Your task to perform on an android device: turn on sleep mode Image 0: 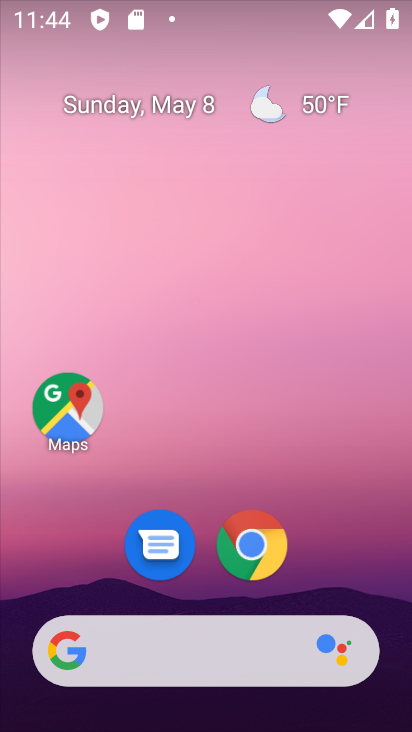
Step 0: drag from (188, 578) to (197, 82)
Your task to perform on an android device: turn on sleep mode Image 1: 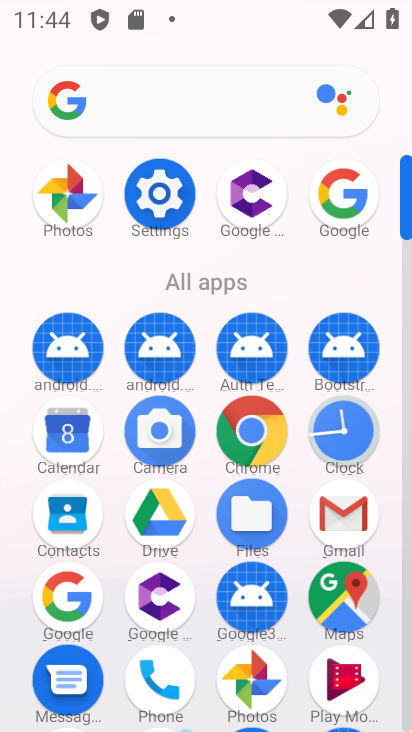
Step 1: click (163, 188)
Your task to perform on an android device: turn on sleep mode Image 2: 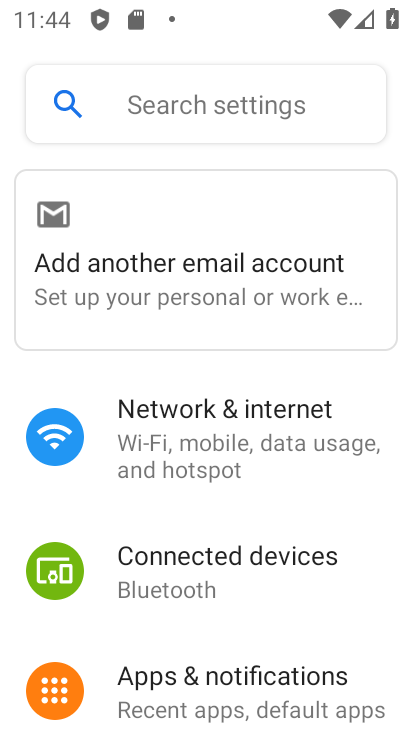
Step 2: drag from (299, 403) to (279, 249)
Your task to perform on an android device: turn on sleep mode Image 3: 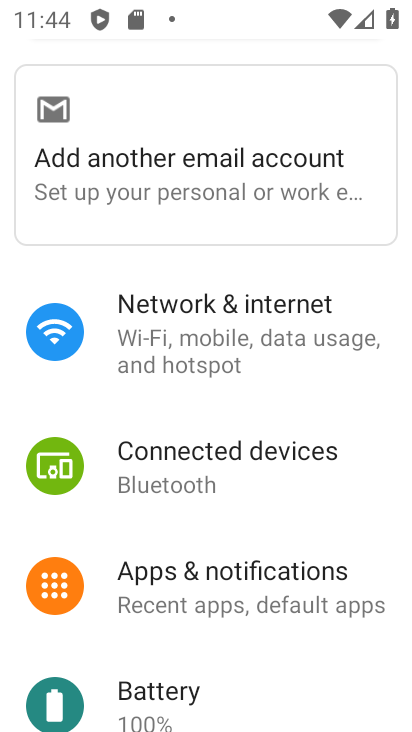
Step 3: drag from (304, 588) to (279, 305)
Your task to perform on an android device: turn on sleep mode Image 4: 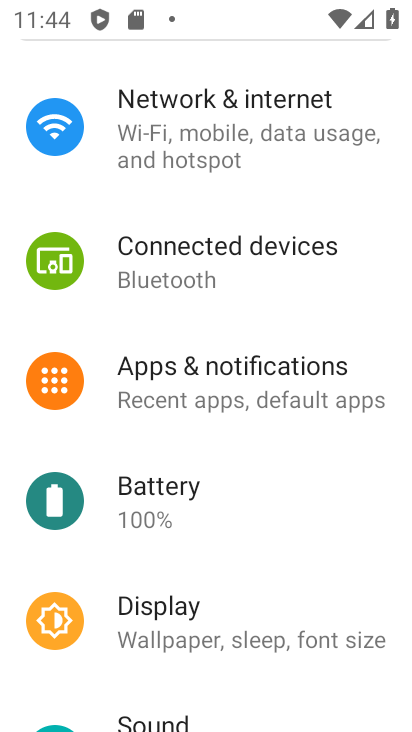
Step 4: drag from (276, 579) to (289, 367)
Your task to perform on an android device: turn on sleep mode Image 5: 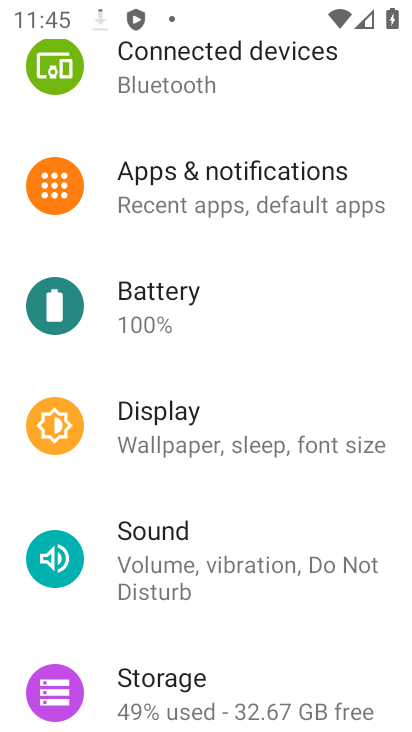
Step 5: click (256, 410)
Your task to perform on an android device: turn on sleep mode Image 6: 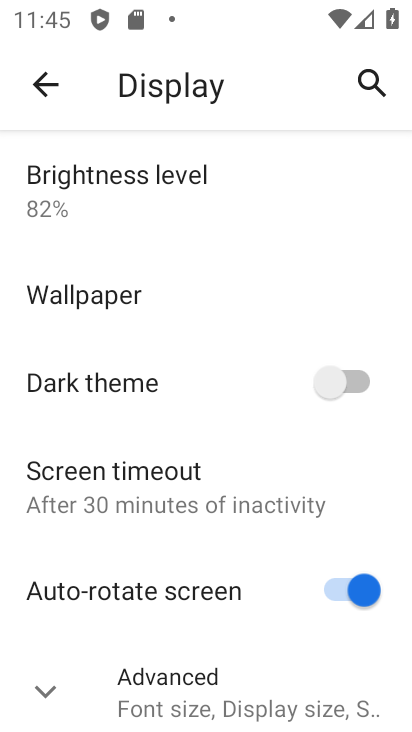
Step 6: click (179, 464)
Your task to perform on an android device: turn on sleep mode Image 7: 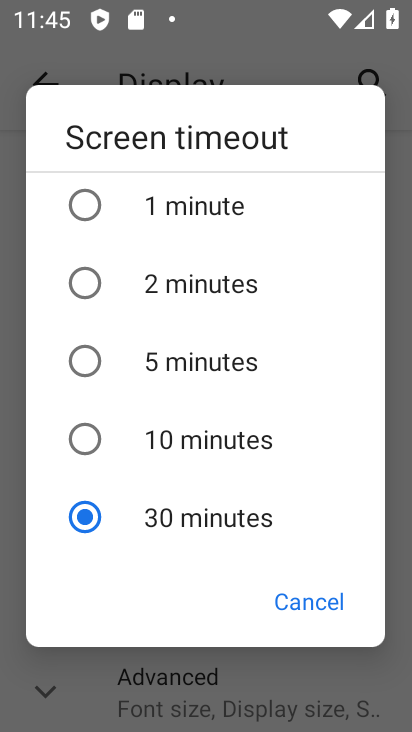
Step 7: click (158, 262)
Your task to perform on an android device: turn on sleep mode Image 8: 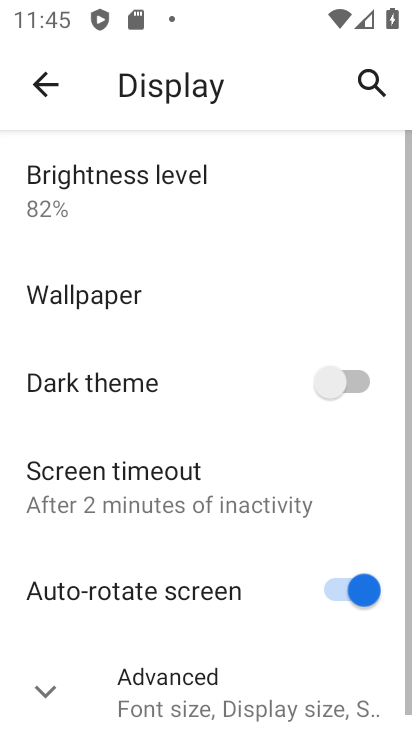
Step 8: task complete